Your task to perform on an android device: Go to Reddit.com Image 0: 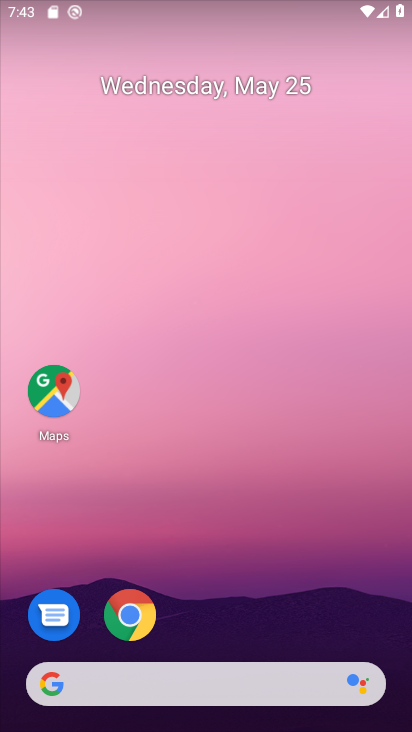
Step 0: drag from (309, 641) to (292, 58)
Your task to perform on an android device: Go to Reddit.com Image 1: 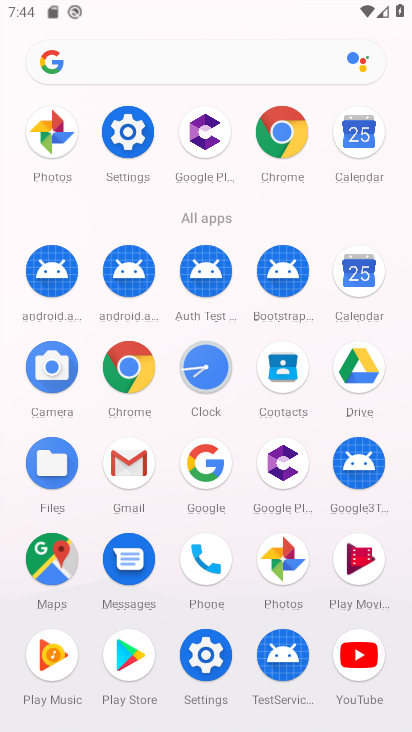
Step 1: click (128, 369)
Your task to perform on an android device: Go to Reddit.com Image 2: 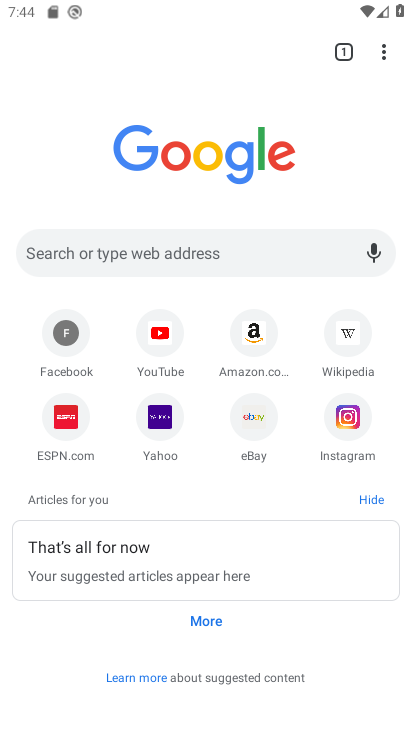
Step 2: click (227, 234)
Your task to perform on an android device: Go to Reddit.com Image 3: 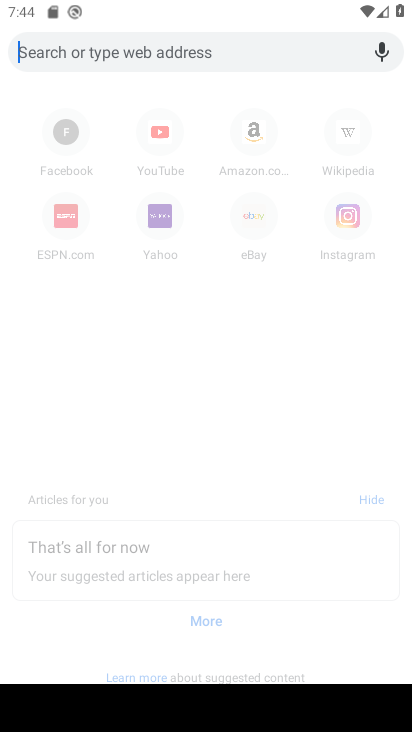
Step 3: type " Reddit.com"
Your task to perform on an android device: Go to Reddit.com Image 4: 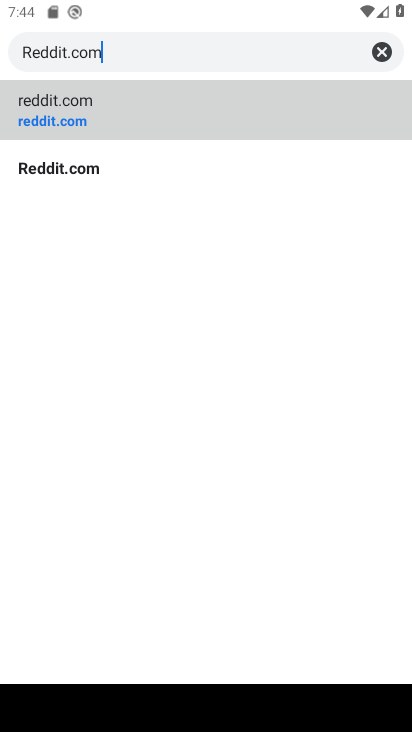
Step 4: click (117, 119)
Your task to perform on an android device: Go to Reddit.com Image 5: 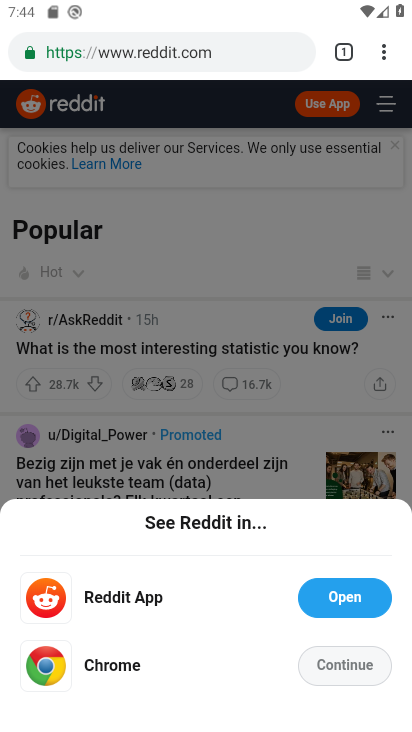
Step 5: task complete